Your task to perform on an android device: toggle pop-ups in chrome Image 0: 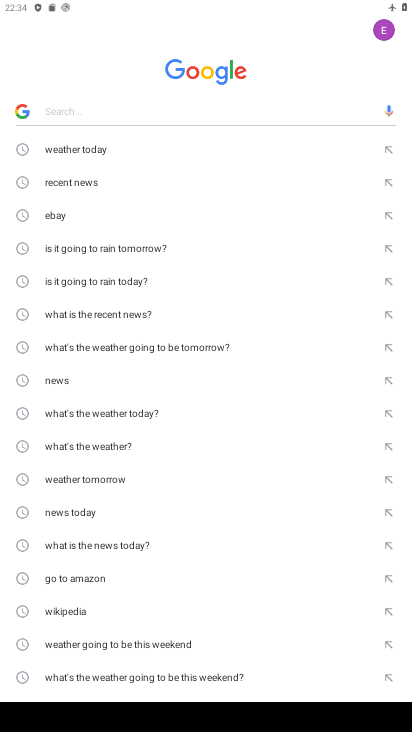
Step 0: press home button
Your task to perform on an android device: toggle pop-ups in chrome Image 1: 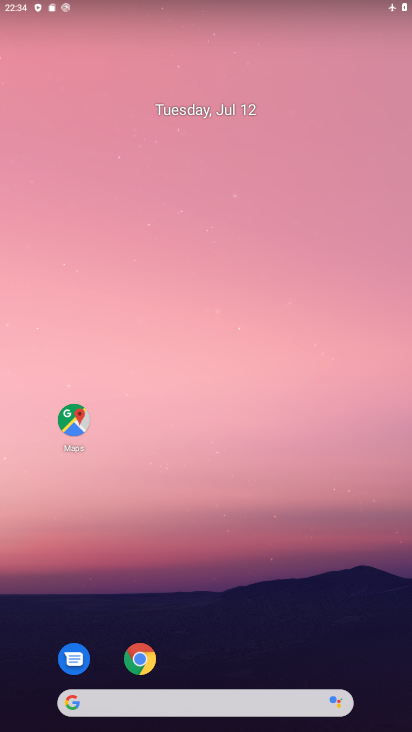
Step 1: drag from (203, 609) to (201, 196)
Your task to perform on an android device: toggle pop-ups in chrome Image 2: 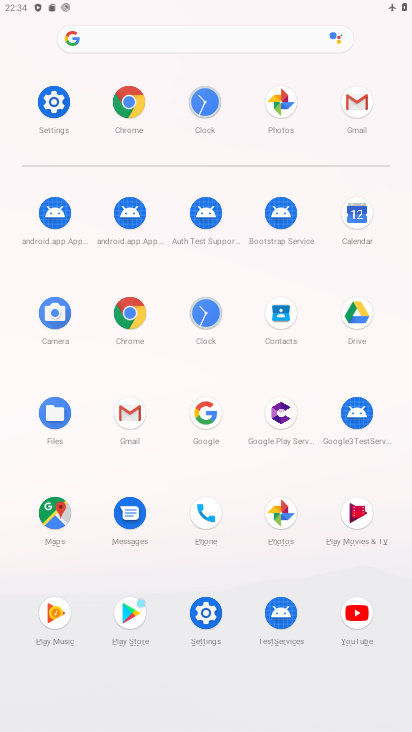
Step 2: click (125, 102)
Your task to perform on an android device: toggle pop-ups in chrome Image 3: 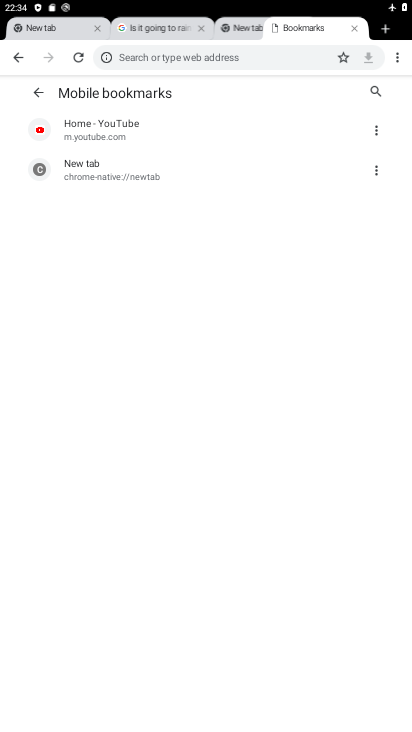
Step 3: click (408, 49)
Your task to perform on an android device: toggle pop-ups in chrome Image 4: 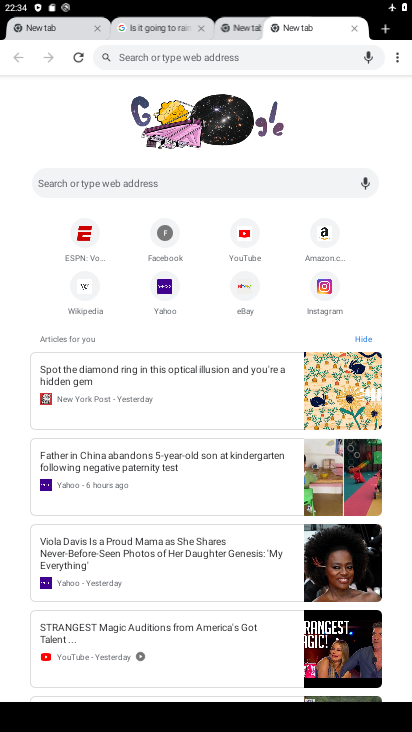
Step 4: click (401, 46)
Your task to perform on an android device: toggle pop-ups in chrome Image 5: 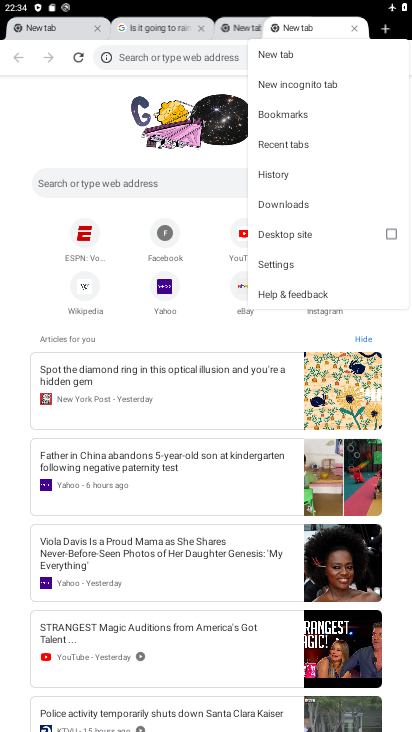
Step 5: click (300, 257)
Your task to perform on an android device: toggle pop-ups in chrome Image 6: 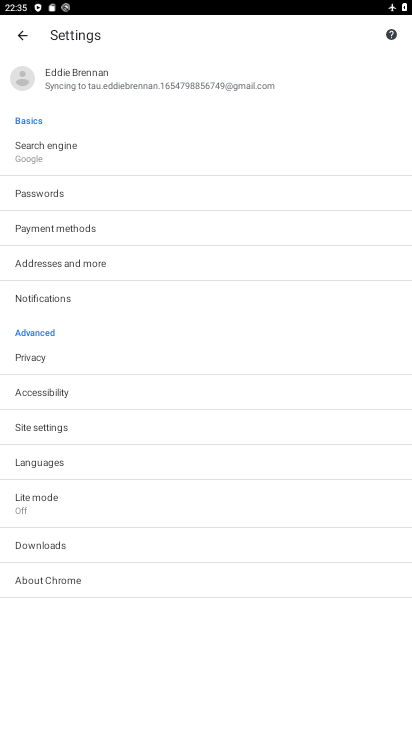
Step 6: click (73, 421)
Your task to perform on an android device: toggle pop-ups in chrome Image 7: 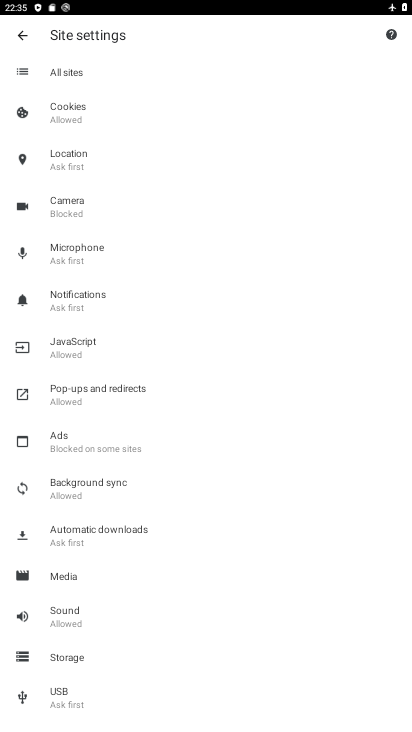
Step 7: click (116, 396)
Your task to perform on an android device: toggle pop-ups in chrome Image 8: 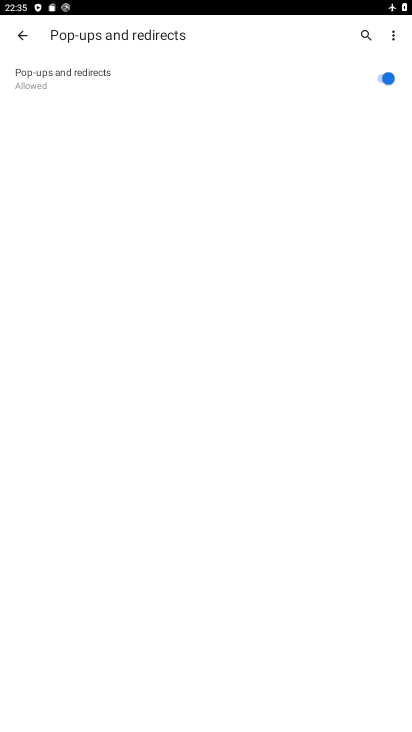
Step 8: click (375, 80)
Your task to perform on an android device: toggle pop-ups in chrome Image 9: 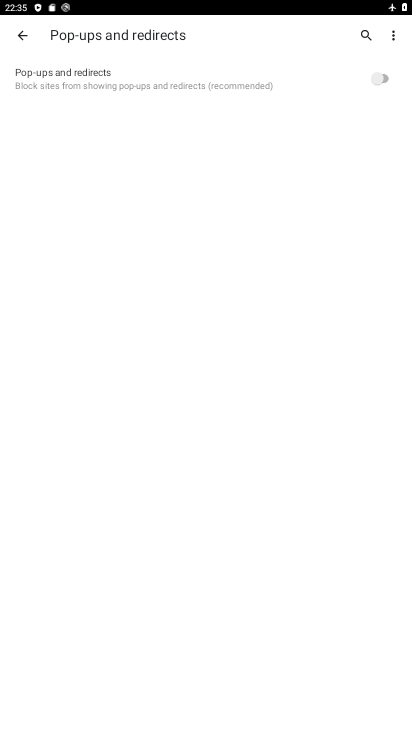
Step 9: task complete